Your task to perform on an android device: open device folders in google photos Image 0: 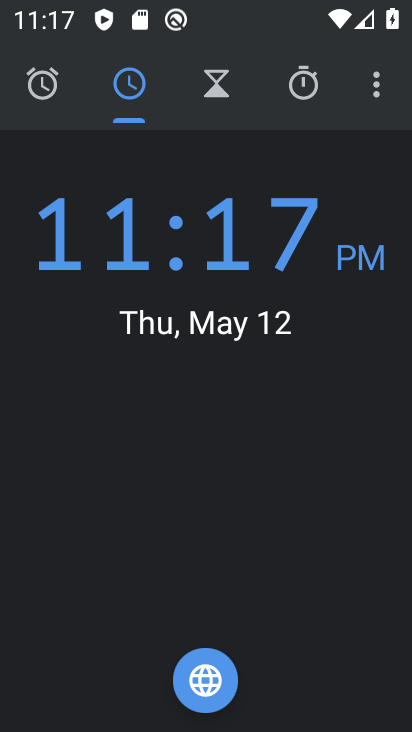
Step 0: click (369, 95)
Your task to perform on an android device: open device folders in google photos Image 1: 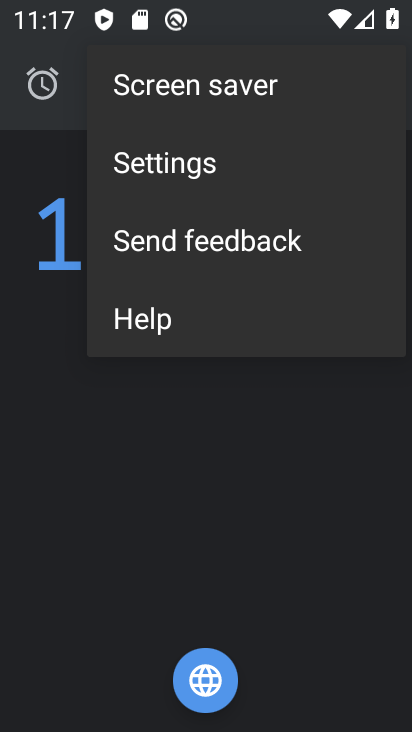
Step 1: click (205, 155)
Your task to perform on an android device: open device folders in google photos Image 2: 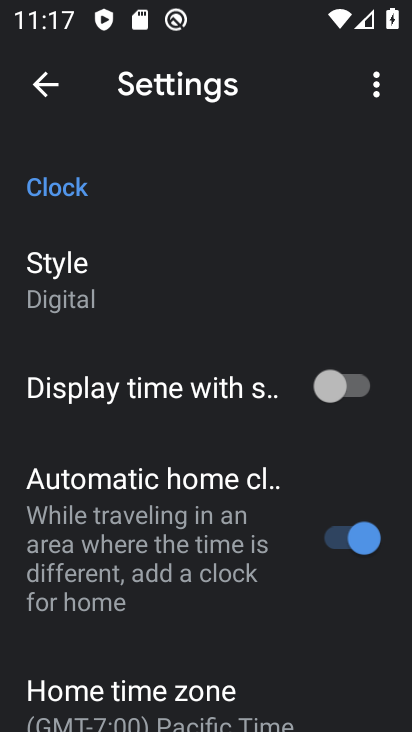
Step 2: press home button
Your task to perform on an android device: open device folders in google photos Image 3: 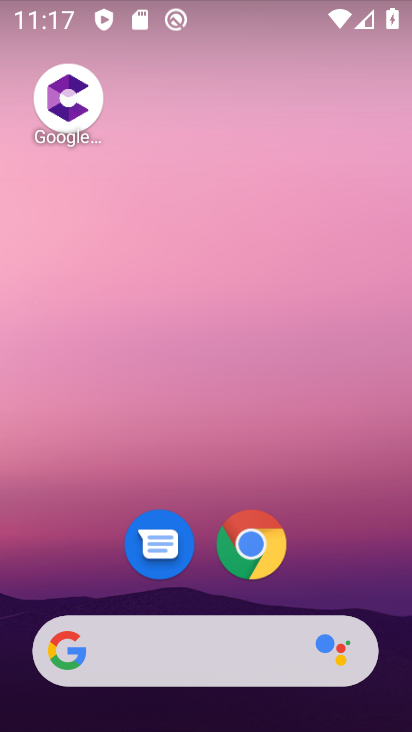
Step 3: drag from (203, 591) to (110, 59)
Your task to perform on an android device: open device folders in google photos Image 4: 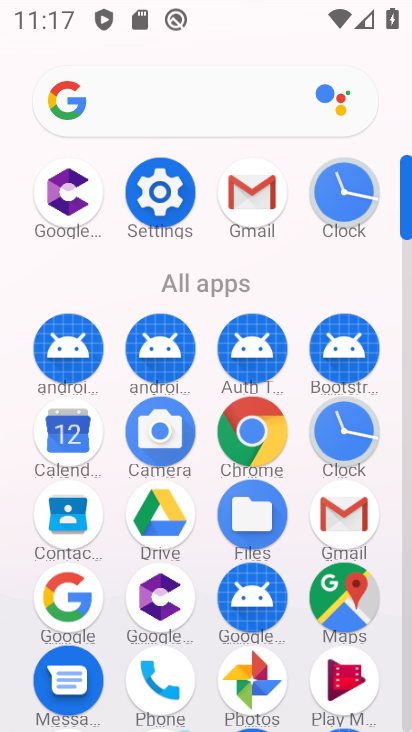
Step 4: click (241, 657)
Your task to perform on an android device: open device folders in google photos Image 5: 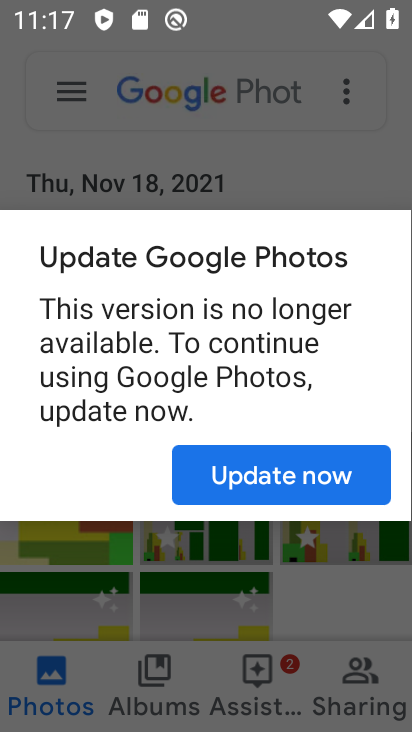
Step 5: click (307, 475)
Your task to perform on an android device: open device folders in google photos Image 6: 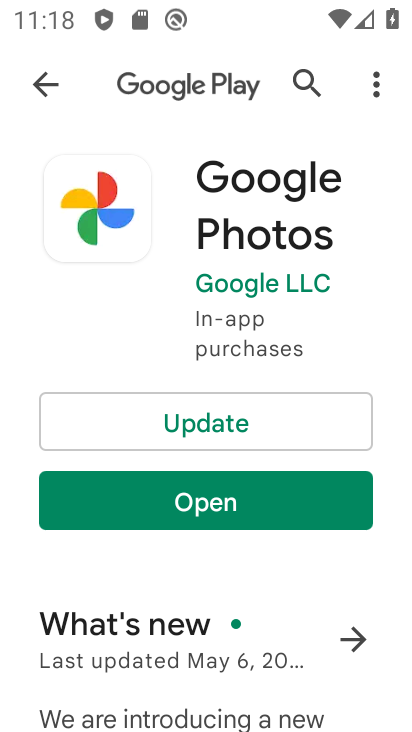
Step 6: click (280, 489)
Your task to perform on an android device: open device folders in google photos Image 7: 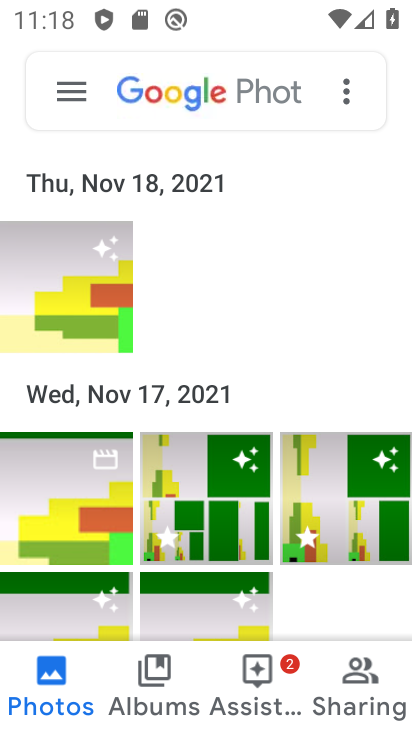
Step 7: click (60, 94)
Your task to perform on an android device: open device folders in google photos Image 8: 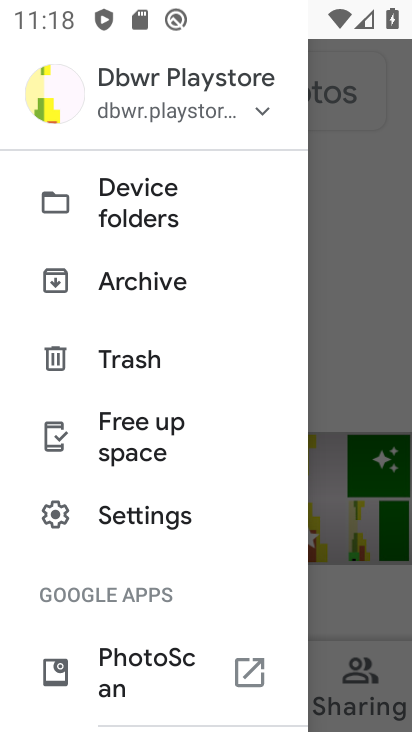
Step 8: click (104, 178)
Your task to perform on an android device: open device folders in google photos Image 9: 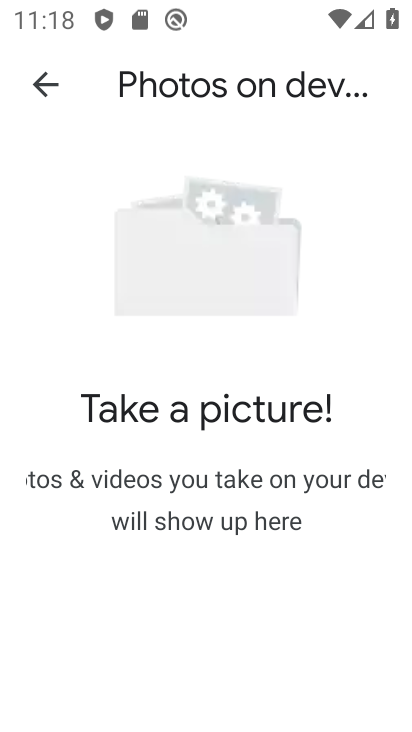
Step 9: task complete